Your task to perform on an android device: Open Google Maps Image 0: 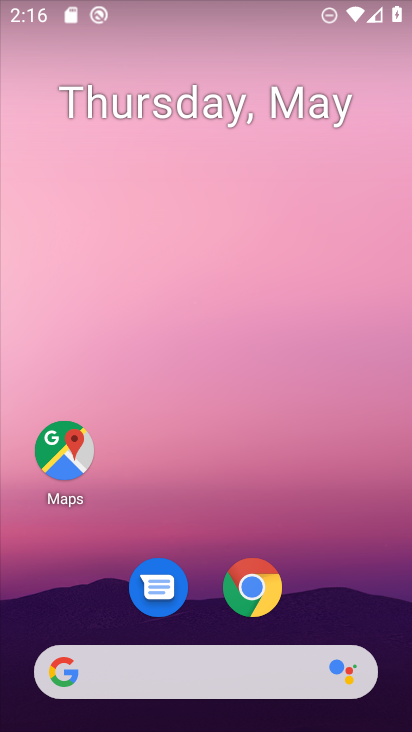
Step 0: click (66, 453)
Your task to perform on an android device: Open Google Maps Image 1: 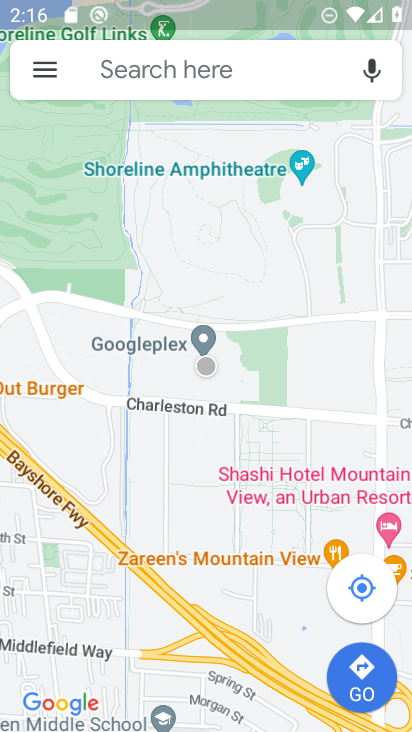
Step 1: task complete